Your task to perform on an android device: Open settings Image 0: 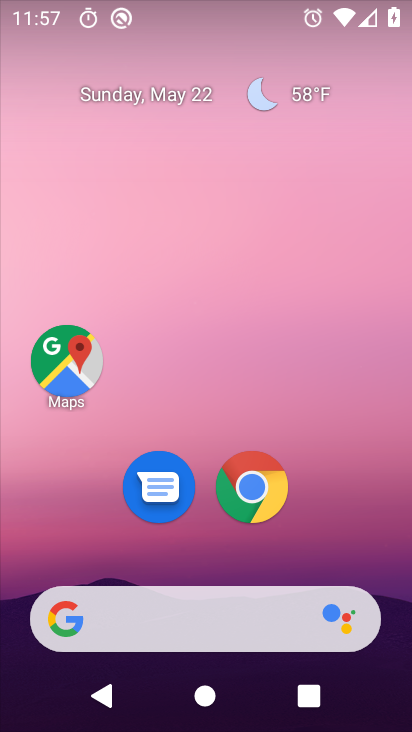
Step 0: press home button
Your task to perform on an android device: Open settings Image 1: 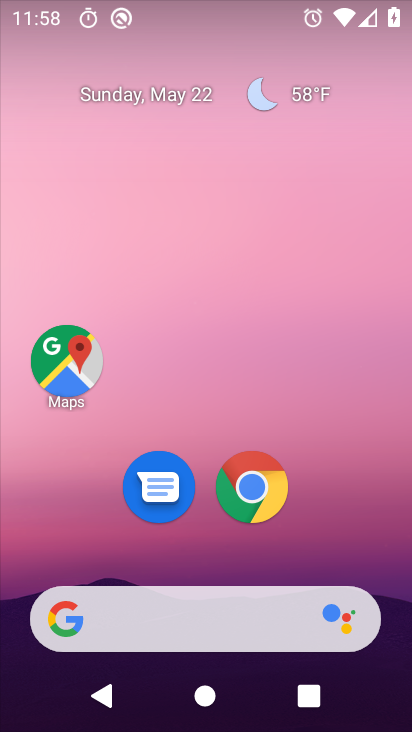
Step 1: drag from (301, 512) to (332, 143)
Your task to perform on an android device: Open settings Image 2: 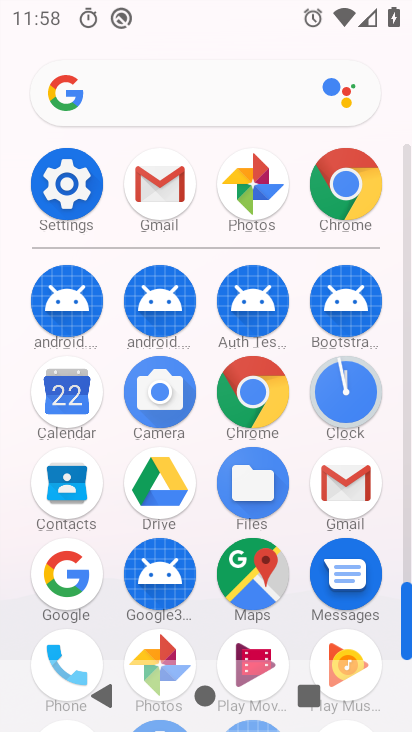
Step 2: click (71, 213)
Your task to perform on an android device: Open settings Image 3: 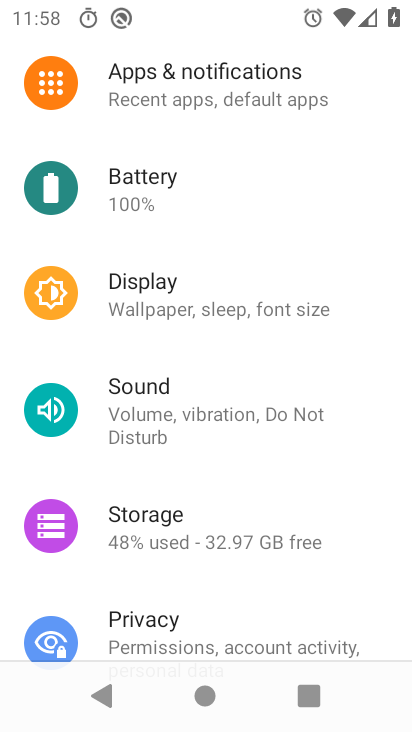
Step 3: task complete